Your task to perform on an android device: turn off sleep mode Image 0: 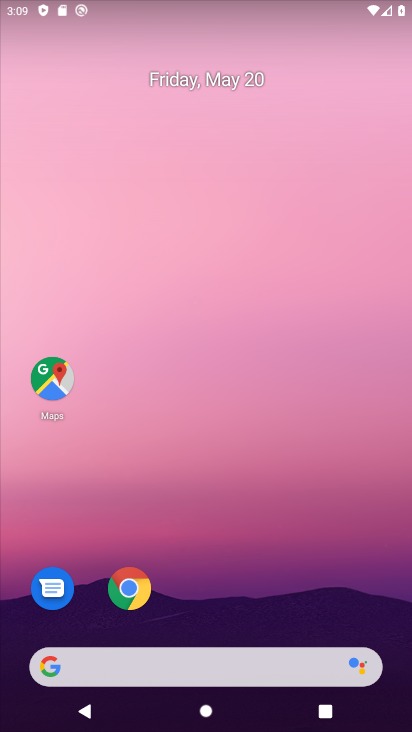
Step 0: drag from (237, 494) to (242, 155)
Your task to perform on an android device: turn off sleep mode Image 1: 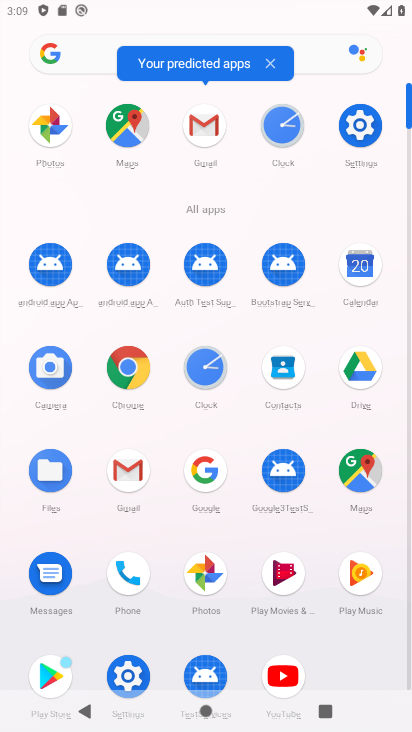
Step 1: click (368, 124)
Your task to perform on an android device: turn off sleep mode Image 2: 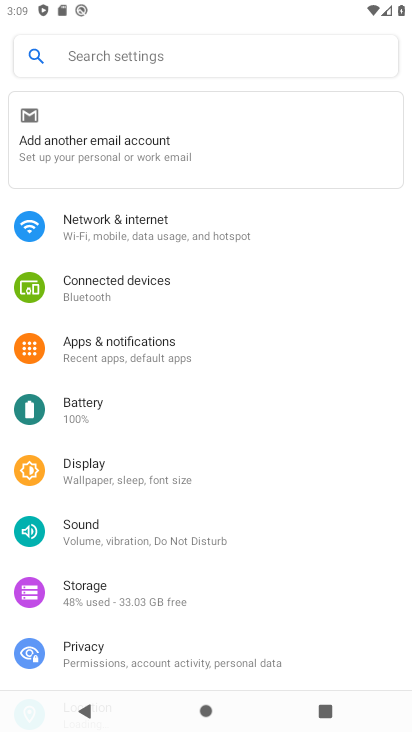
Step 2: click (144, 464)
Your task to perform on an android device: turn off sleep mode Image 3: 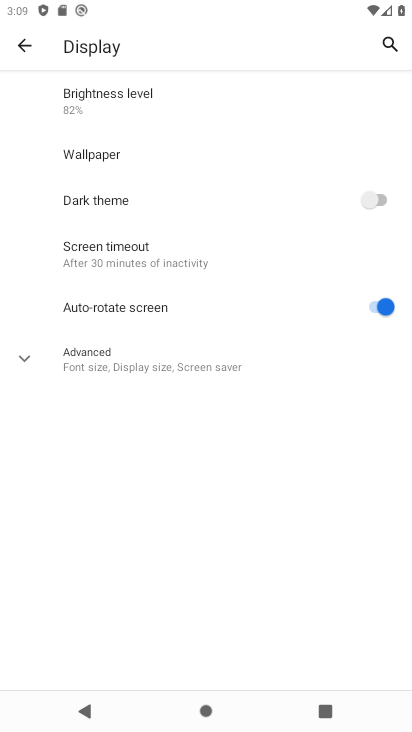
Step 3: click (160, 366)
Your task to perform on an android device: turn off sleep mode Image 4: 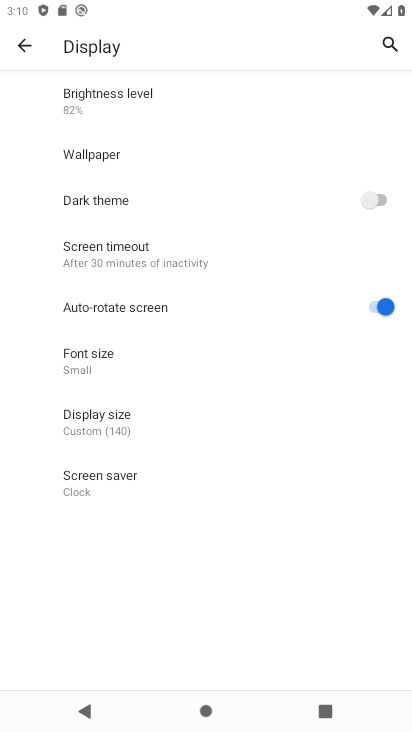
Step 4: task complete